Your task to perform on an android device: change timer sound Image 0: 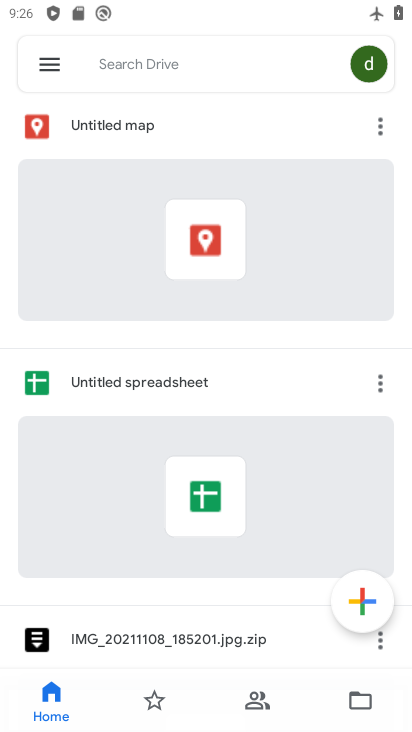
Step 0: press home button
Your task to perform on an android device: change timer sound Image 1: 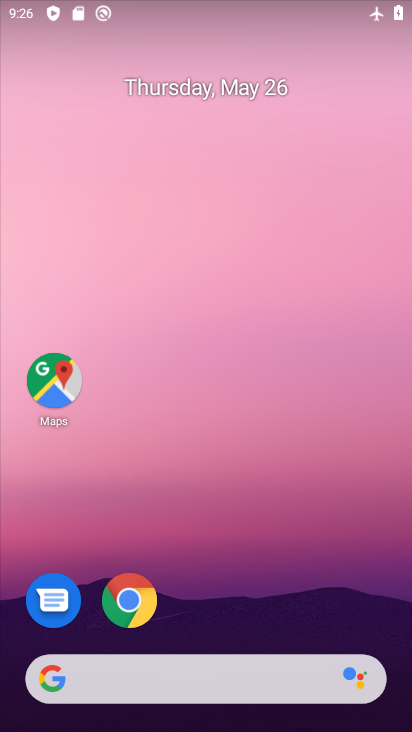
Step 1: drag from (243, 616) to (341, 213)
Your task to perform on an android device: change timer sound Image 2: 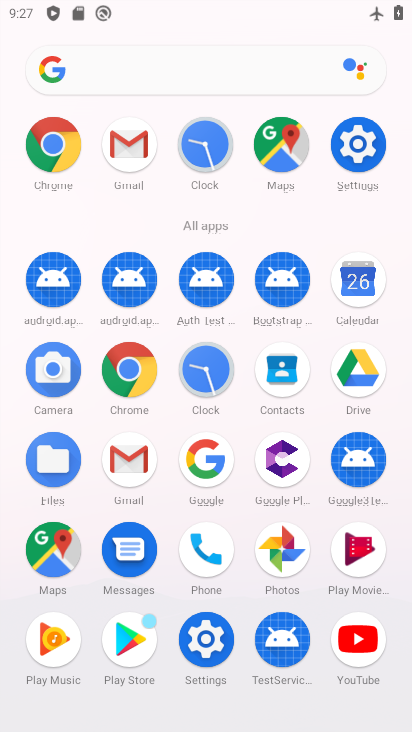
Step 2: click (211, 372)
Your task to perform on an android device: change timer sound Image 3: 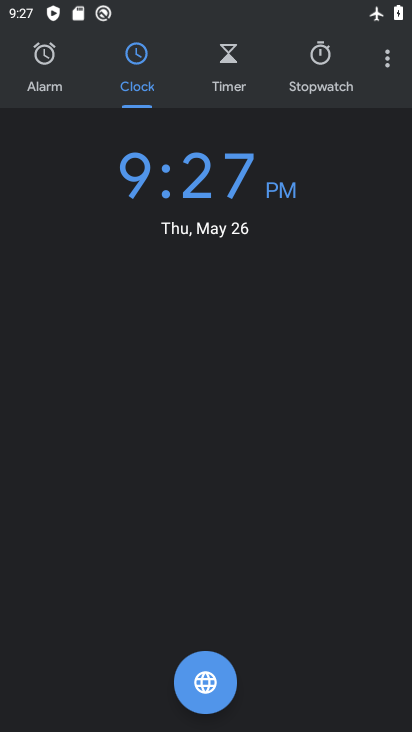
Step 3: click (392, 72)
Your task to perform on an android device: change timer sound Image 4: 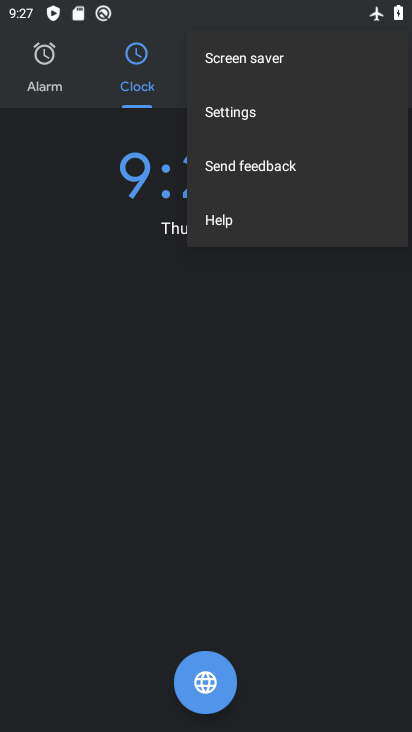
Step 4: click (233, 118)
Your task to perform on an android device: change timer sound Image 5: 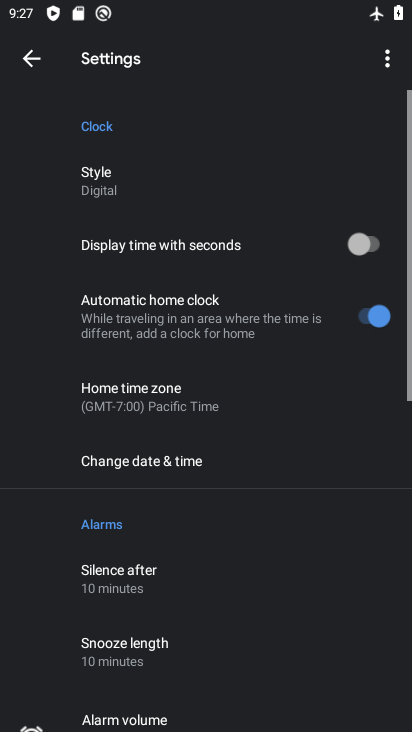
Step 5: drag from (215, 602) to (368, 10)
Your task to perform on an android device: change timer sound Image 6: 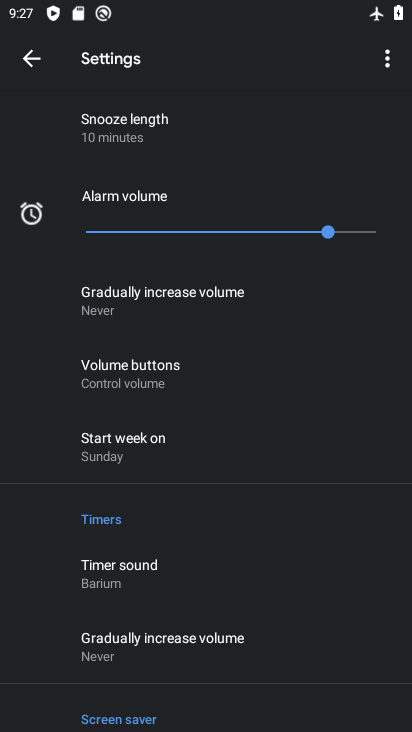
Step 6: click (137, 570)
Your task to perform on an android device: change timer sound Image 7: 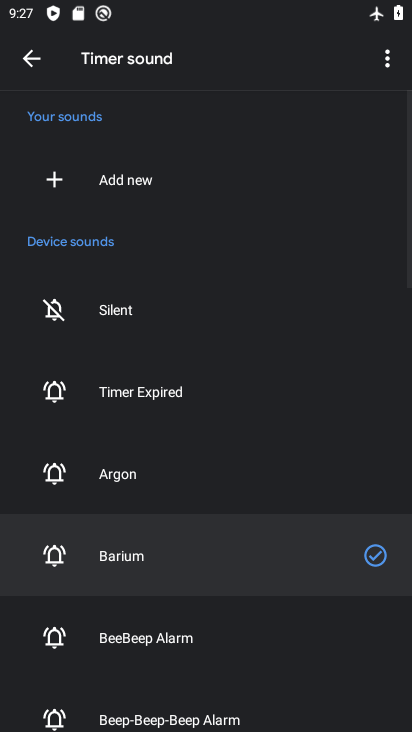
Step 7: click (145, 469)
Your task to perform on an android device: change timer sound Image 8: 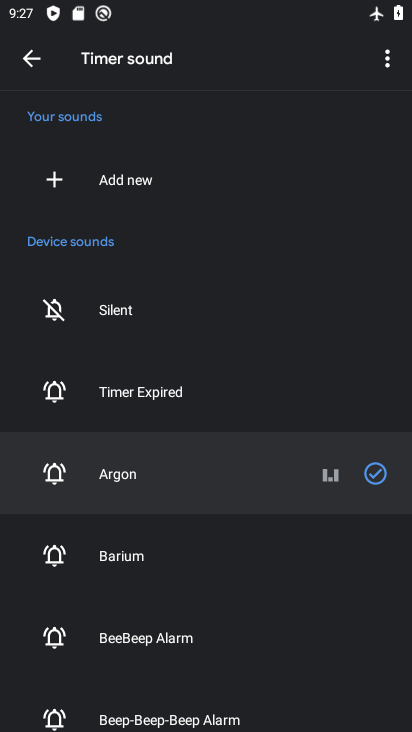
Step 8: task complete